Your task to perform on an android device: check google app version Image 0: 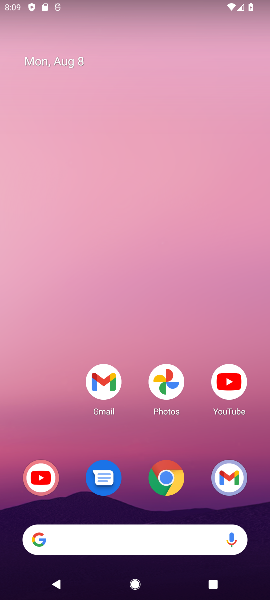
Step 0: drag from (123, 542) to (220, 210)
Your task to perform on an android device: check google app version Image 1: 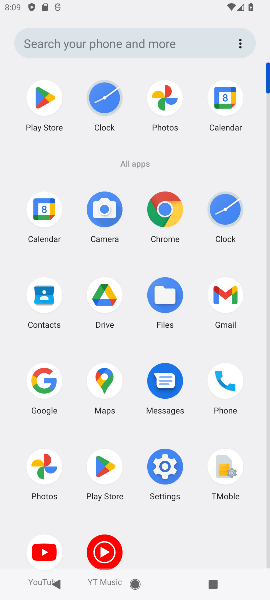
Step 1: click (47, 386)
Your task to perform on an android device: check google app version Image 2: 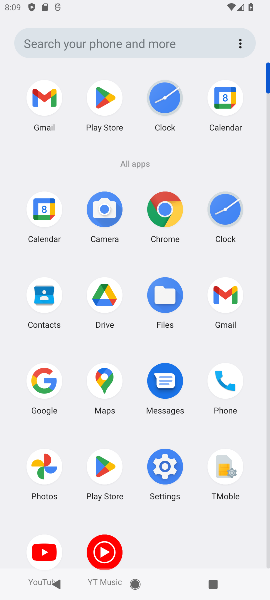
Step 2: click (41, 376)
Your task to perform on an android device: check google app version Image 3: 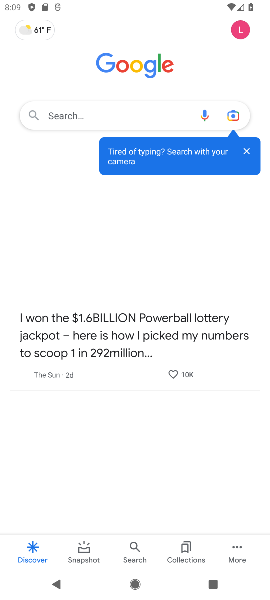
Step 3: press back button
Your task to perform on an android device: check google app version Image 4: 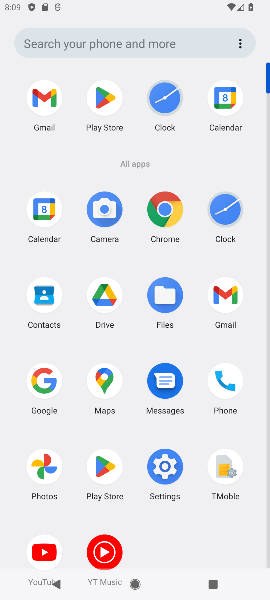
Step 4: click (42, 379)
Your task to perform on an android device: check google app version Image 5: 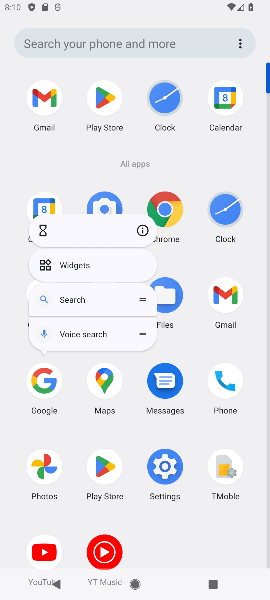
Step 5: click (144, 227)
Your task to perform on an android device: check google app version Image 6: 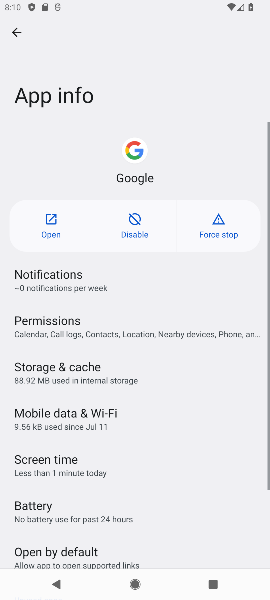
Step 6: task complete